Your task to perform on an android device: change the clock display to analog Image 0: 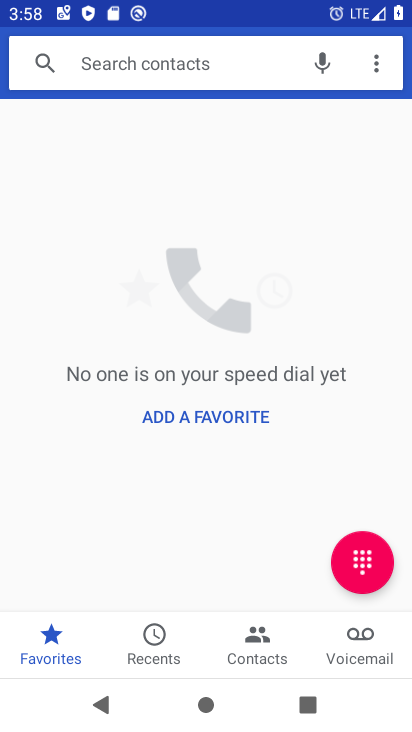
Step 0: press home button
Your task to perform on an android device: change the clock display to analog Image 1: 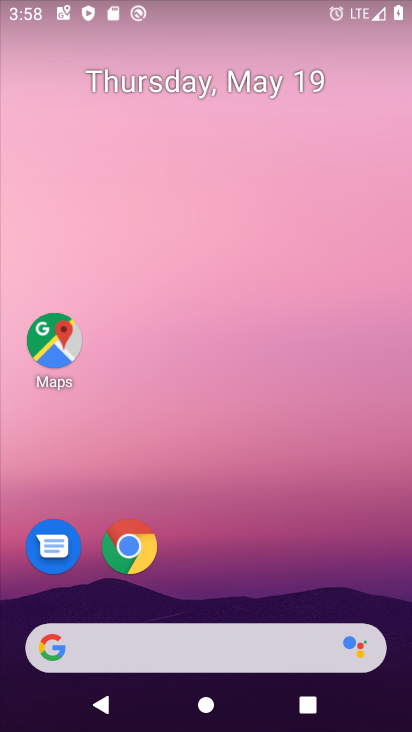
Step 1: drag from (226, 552) to (333, 69)
Your task to perform on an android device: change the clock display to analog Image 2: 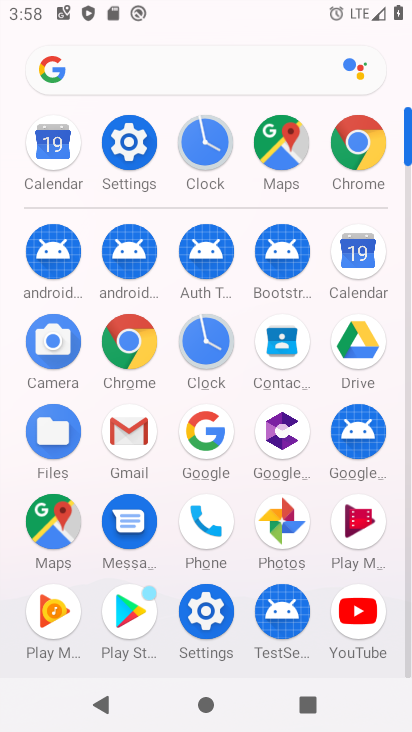
Step 2: click (197, 331)
Your task to perform on an android device: change the clock display to analog Image 3: 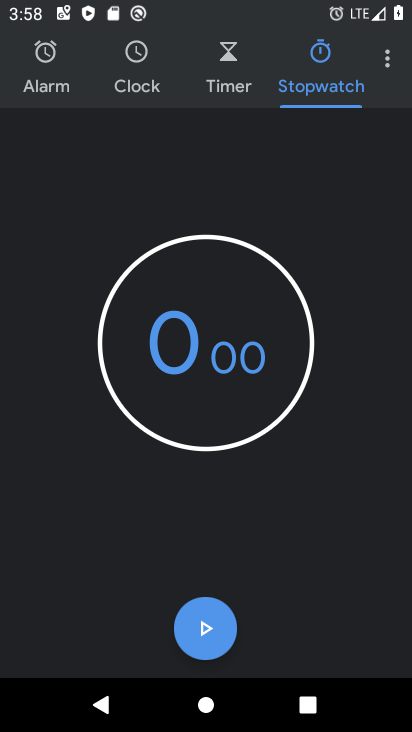
Step 3: click (385, 54)
Your task to perform on an android device: change the clock display to analog Image 4: 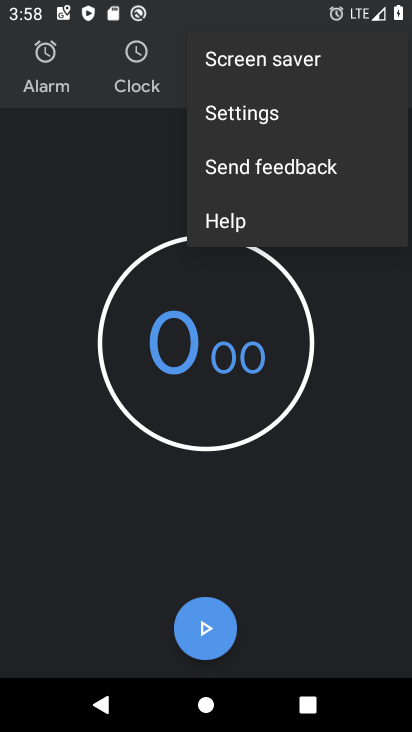
Step 4: click (296, 100)
Your task to perform on an android device: change the clock display to analog Image 5: 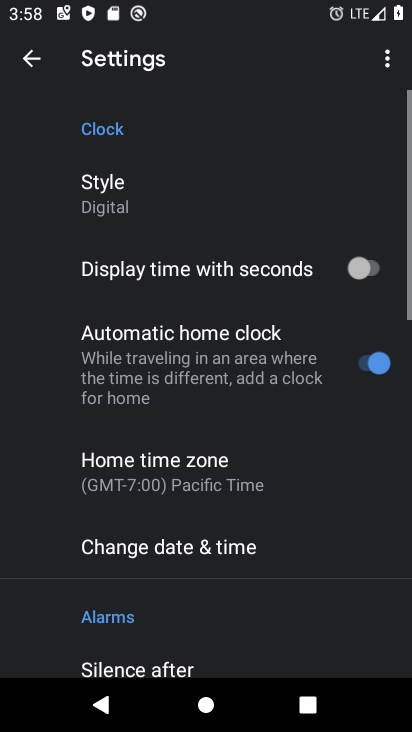
Step 5: click (163, 186)
Your task to perform on an android device: change the clock display to analog Image 6: 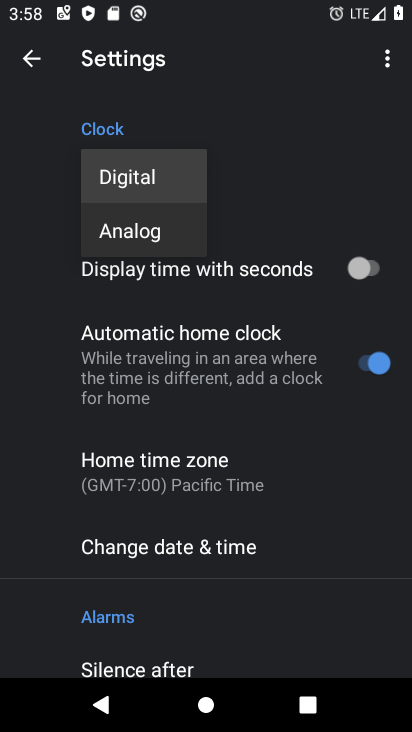
Step 6: click (143, 229)
Your task to perform on an android device: change the clock display to analog Image 7: 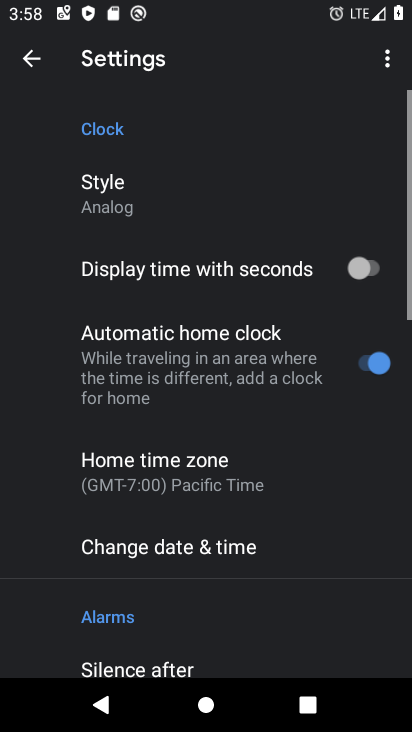
Step 7: task complete